Your task to perform on an android device: turn on the 24-hour format for clock Image 0: 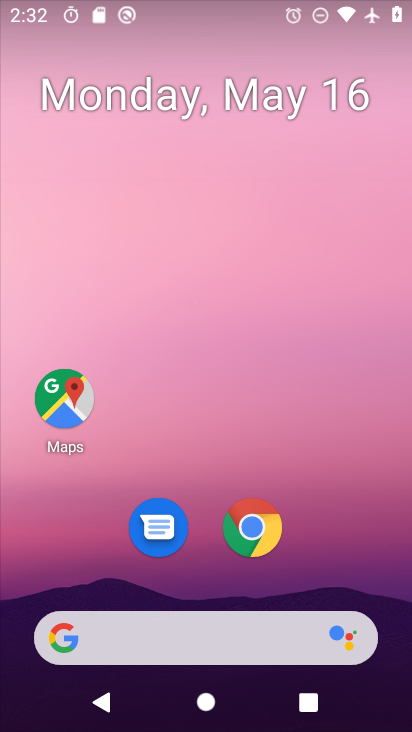
Step 0: drag from (199, 615) to (317, 205)
Your task to perform on an android device: turn on the 24-hour format for clock Image 1: 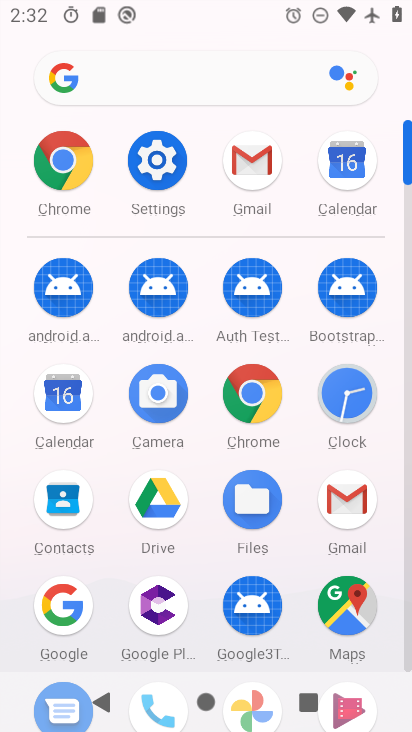
Step 1: click (341, 395)
Your task to perform on an android device: turn on the 24-hour format for clock Image 2: 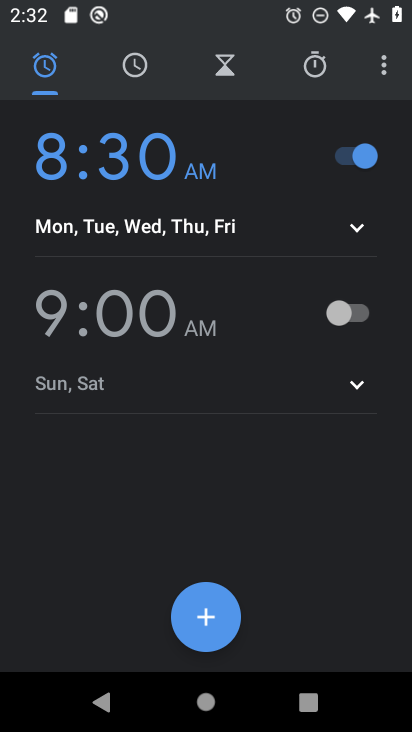
Step 2: click (384, 66)
Your task to perform on an android device: turn on the 24-hour format for clock Image 3: 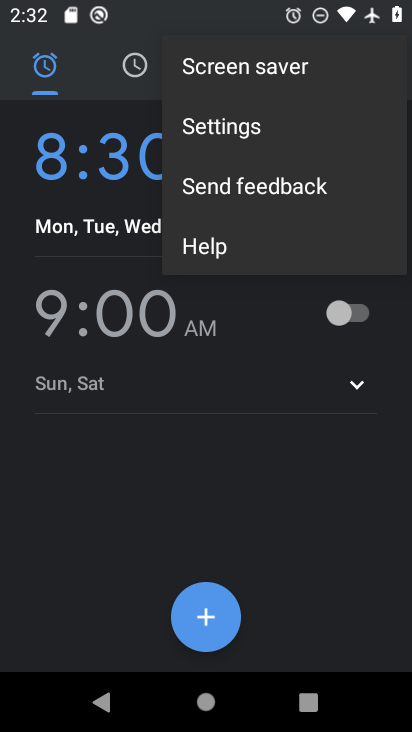
Step 3: click (264, 133)
Your task to perform on an android device: turn on the 24-hour format for clock Image 4: 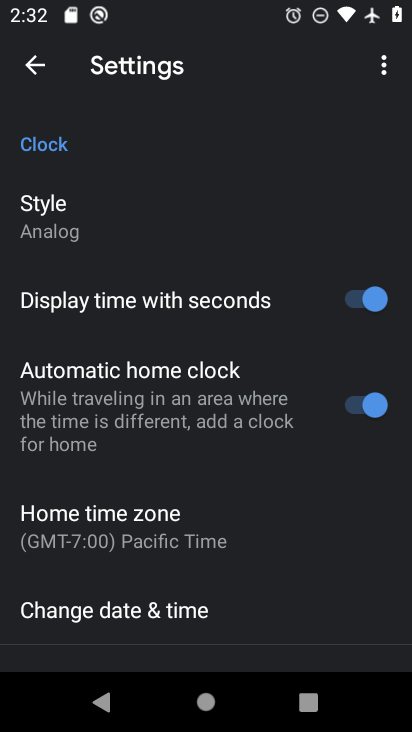
Step 4: drag from (212, 614) to (337, 291)
Your task to perform on an android device: turn on the 24-hour format for clock Image 5: 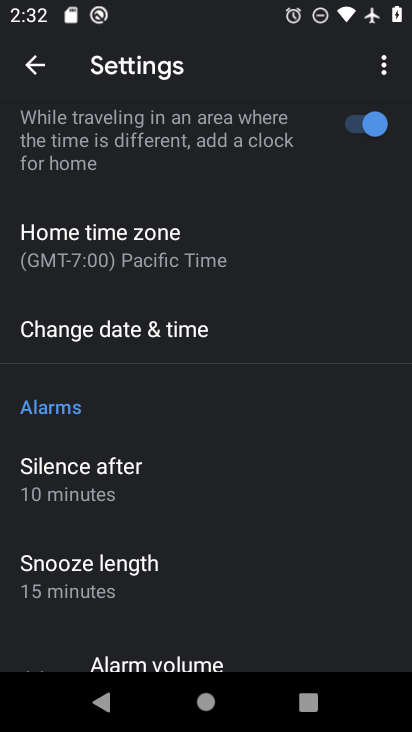
Step 5: click (188, 452)
Your task to perform on an android device: turn on the 24-hour format for clock Image 6: 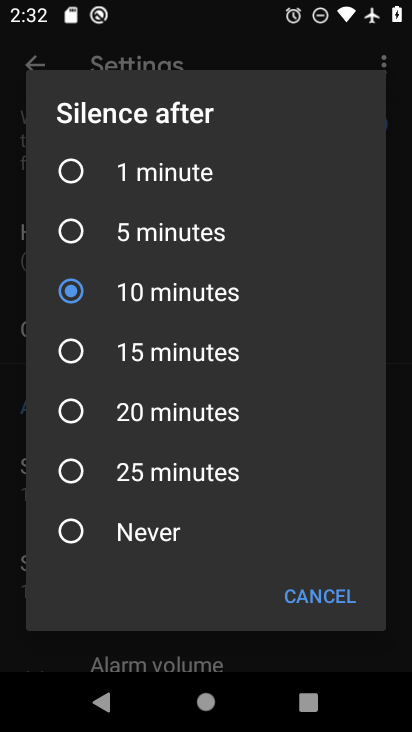
Step 6: click (297, 595)
Your task to perform on an android device: turn on the 24-hour format for clock Image 7: 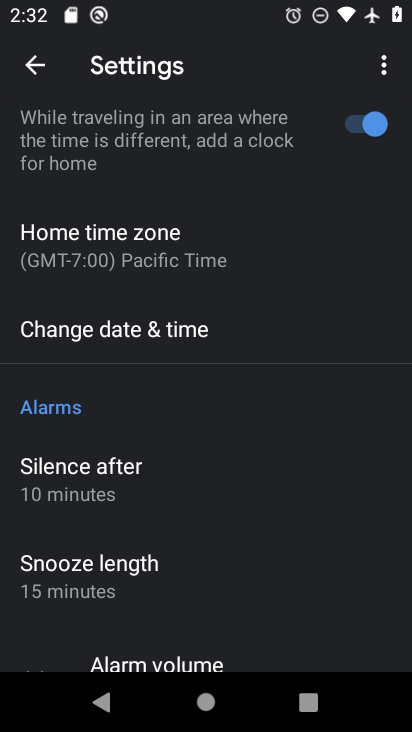
Step 7: click (188, 329)
Your task to perform on an android device: turn on the 24-hour format for clock Image 8: 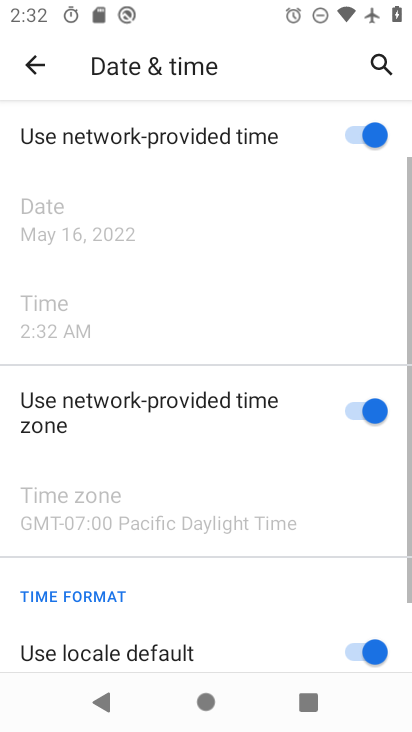
Step 8: drag from (178, 582) to (333, 124)
Your task to perform on an android device: turn on the 24-hour format for clock Image 9: 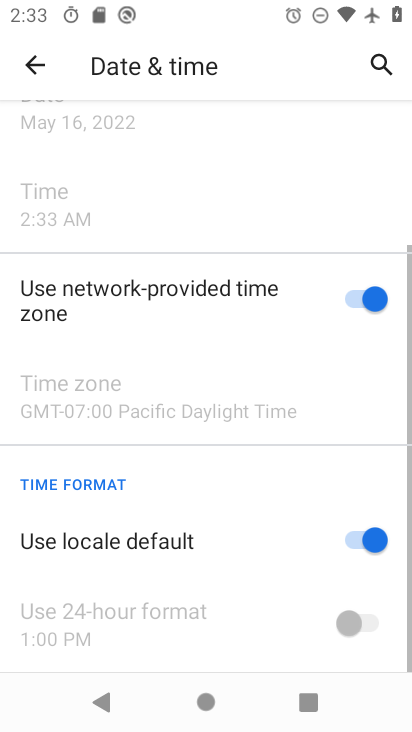
Step 9: click (360, 623)
Your task to perform on an android device: turn on the 24-hour format for clock Image 10: 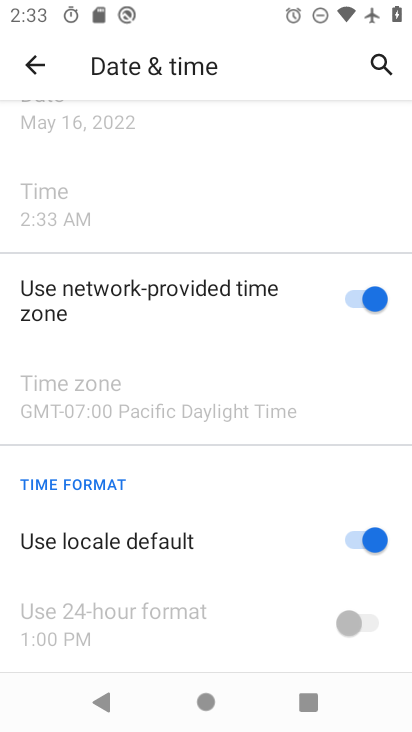
Step 10: click (357, 534)
Your task to perform on an android device: turn on the 24-hour format for clock Image 11: 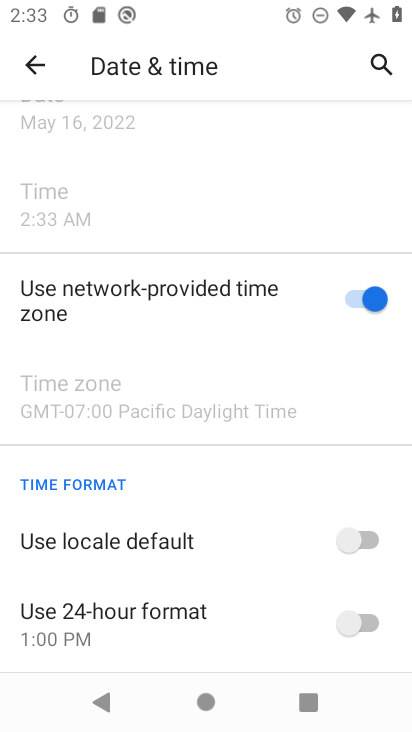
Step 11: click (377, 622)
Your task to perform on an android device: turn on the 24-hour format for clock Image 12: 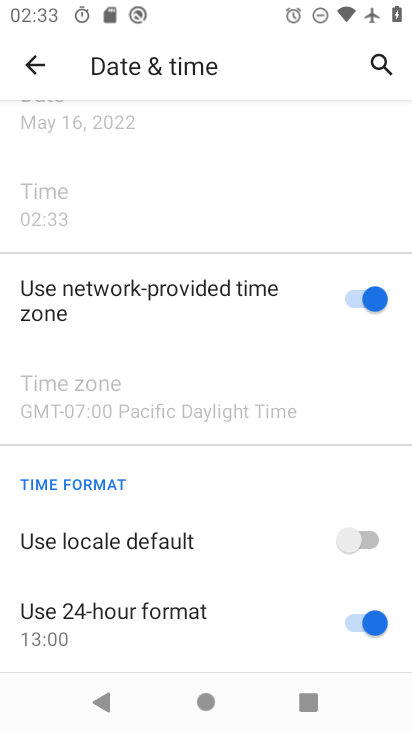
Step 12: task complete